Your task to perform on an android device: What's the weather going to be tomorrow? Image 0: 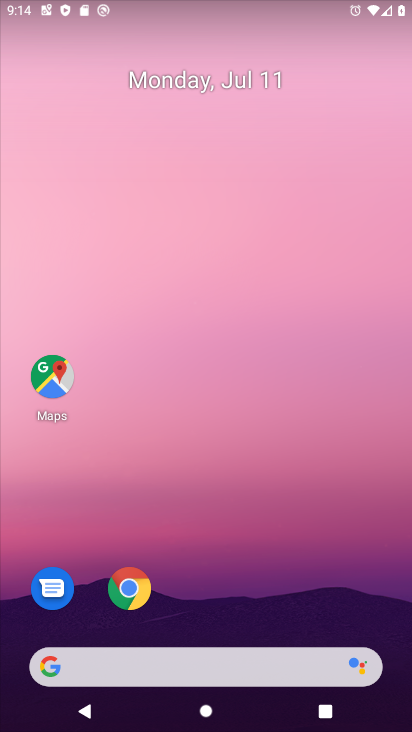
Step 0: drag from (183, 588) to (236, 45)
Your task to perform on an android device: What's the weather going to be tomorrow? Image 1: 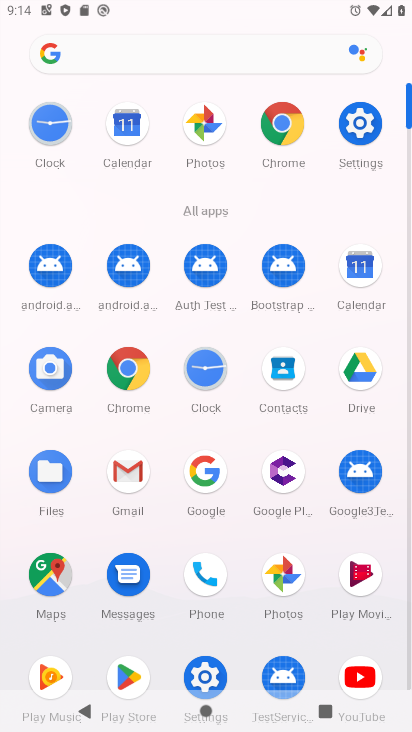
Step 1: click (275, 130)
Your task to perform on an android device: What's the weather going to be tomorrow? Image 2: 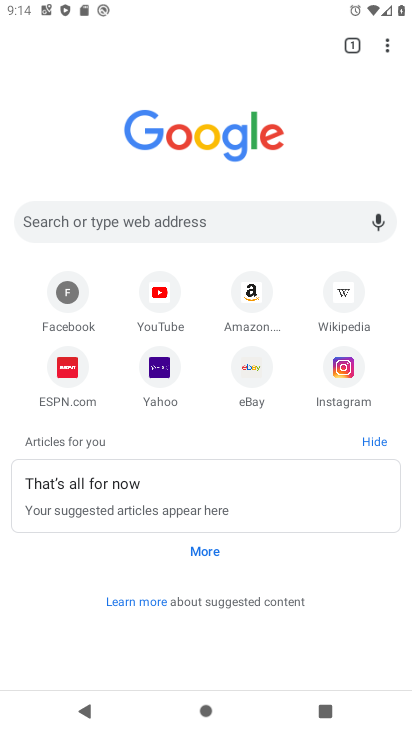
Step 2: click (162, 222)
Your task to perform on an android device: What's the weather going to be tomorrow? Image 3: 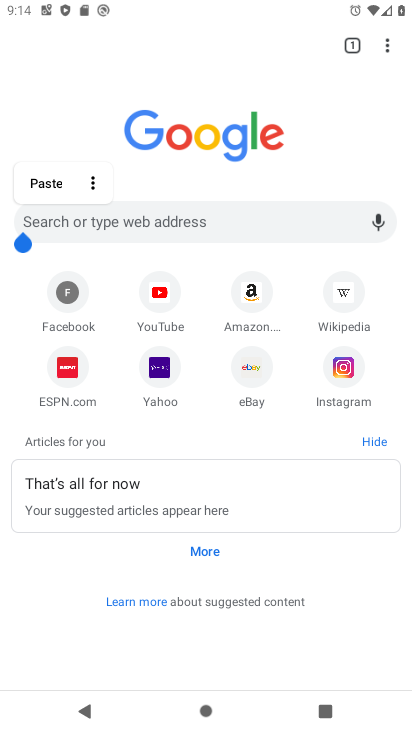
Step 3: click (182, 225)
Your task to perform on an android device: What's the weather going to be tomorrow? Image 4: 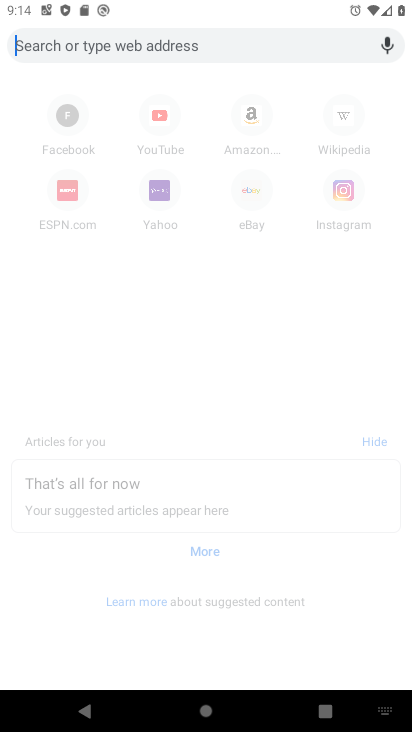
Step 4: type "weather"
Your task to perform on an android device: What's the weather going to be tomorrow? Image 5: 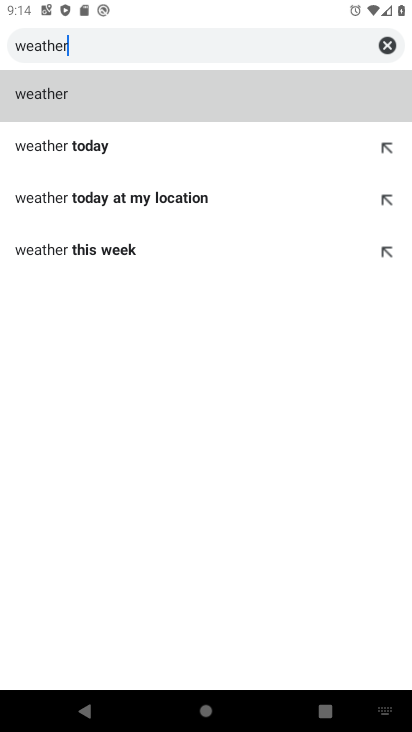
Step 5: type " tommorow"
Your task to perform on an android device: What's the weather going to be tomorrow? Image 6: 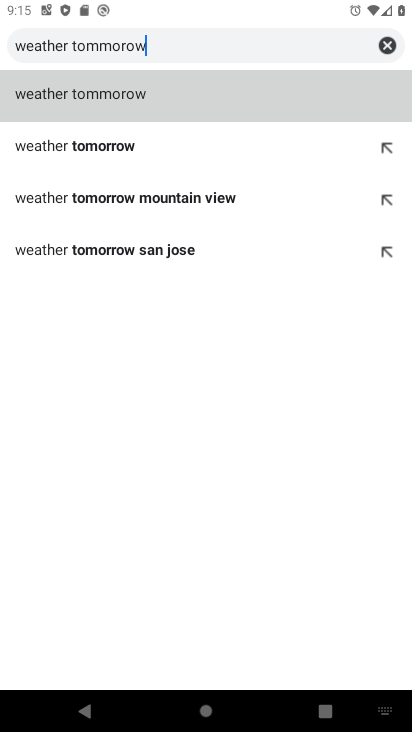
Step 6: click (109, 146)
Your task to perform on an android device: What's the weather going to be tomorrow? Image 7: 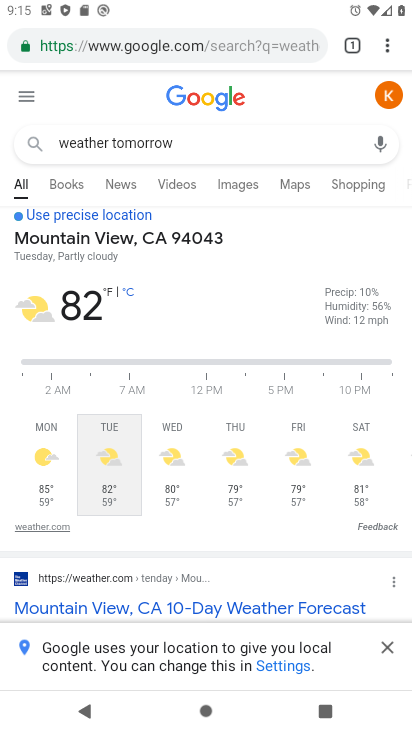
Step 7: task complete